Your task to perform on an android device: Go to Android settings Image 0: 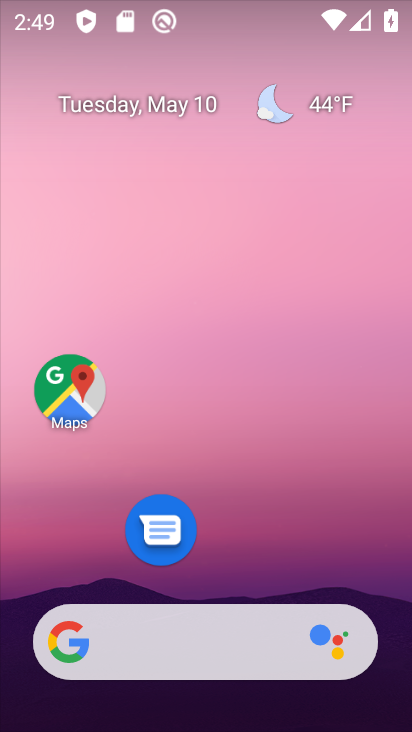
Step 0: drag from (243, 551) to (234, 39)
Your task to perform on an android device: Go to Android settings Image 1: 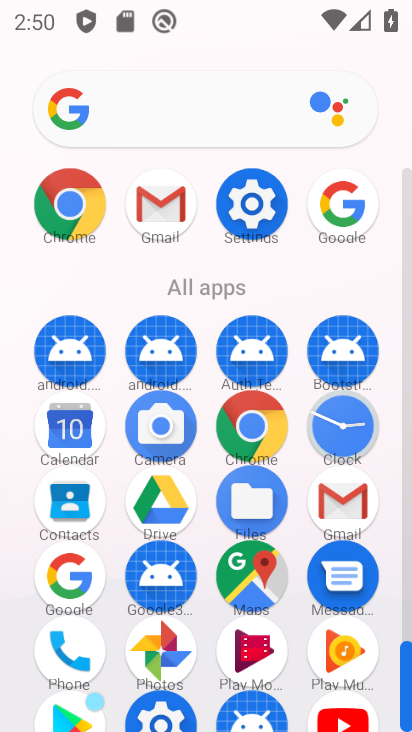
Step 1: click (253, 209)
Your task to perform on an android device: Go to Android settings Image 2: 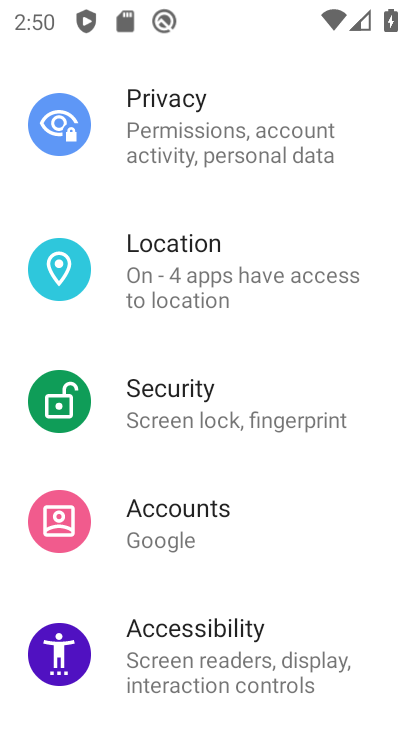
Step 2: task complete